Your task to perform on an android device: clear history in the chrome app Image 0: 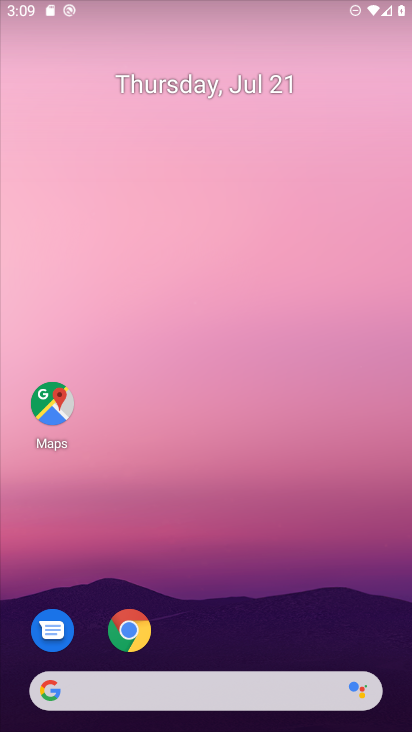
Step 0: click (37, 384)
Your task to perform on an android device: clear history in the chrome app Image 1: 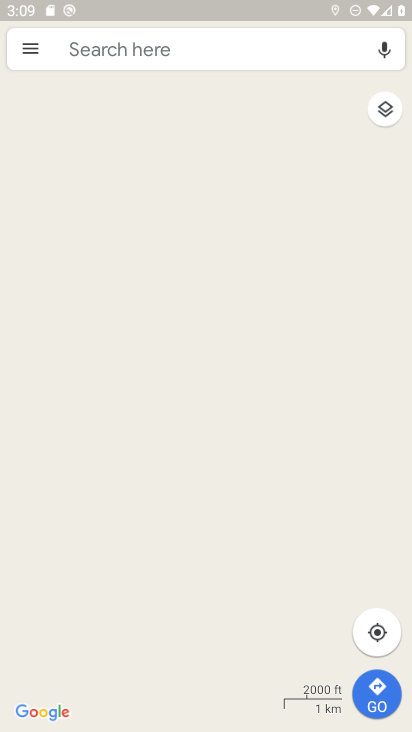
Step 1: press back button
Your task to perform on an android device: clear history in the chrome app Image 2: 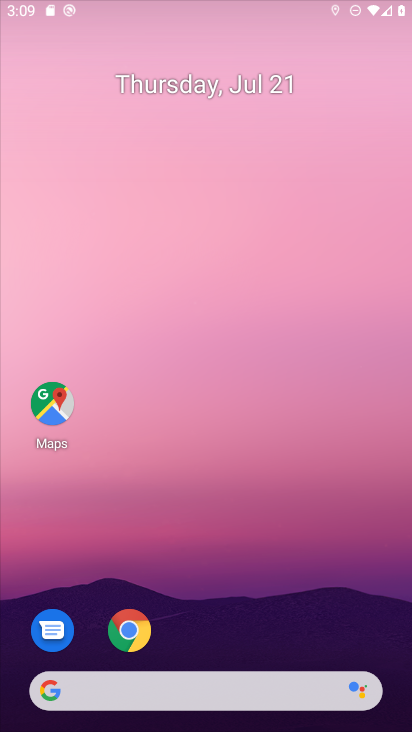
Step 2: click (119, 637)
Your task to perform on an android device: clear history in the chrome app Image 3: 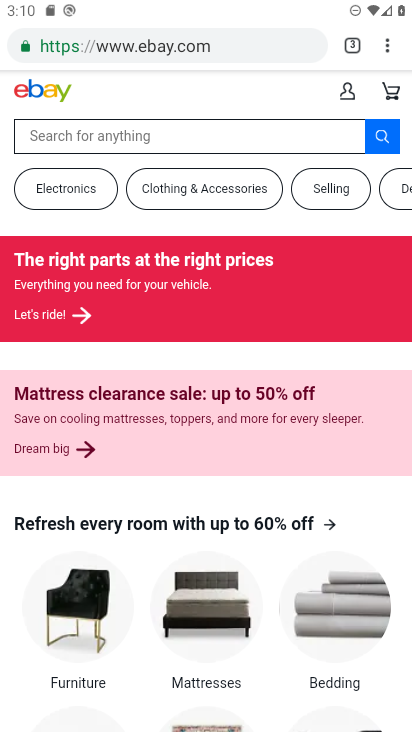
Step 3: drag from (393, 50) to (250, 250)
Your task to perform on an android device: clear history in the chrome app Image 4: 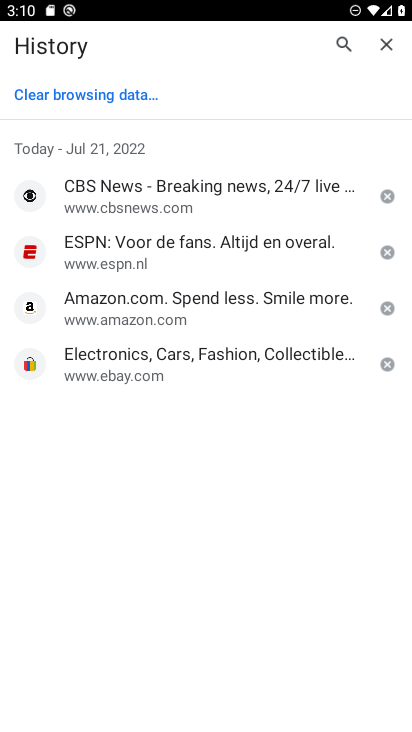
Step 4: click (91, 98)
Your task to perform on an android device: clear history in the chrome app Image 5: 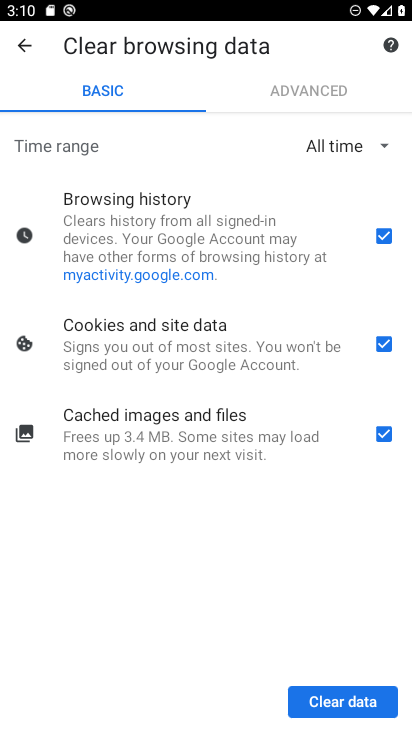
Step 5: click (357, 690)
Your task to perform on an android device: clear history in the chrome app Image 6: 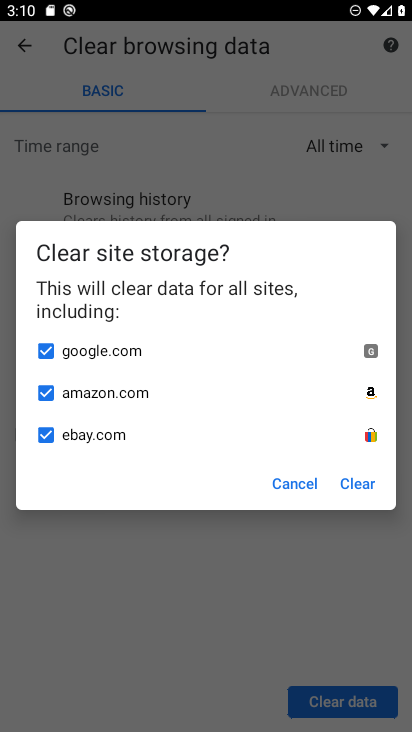
Step 6: click (347, 490)
Your task to perform on an android device: clear history in the chrome app Image 7: 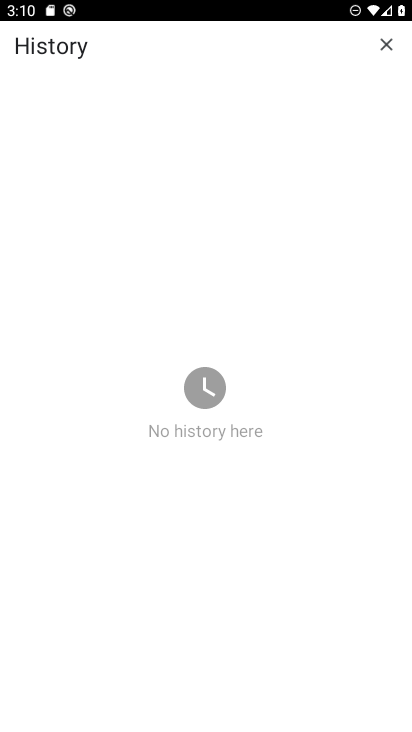
Step 7: task complete